Your task to perform on an android device: turn on sleep mode Image 0: 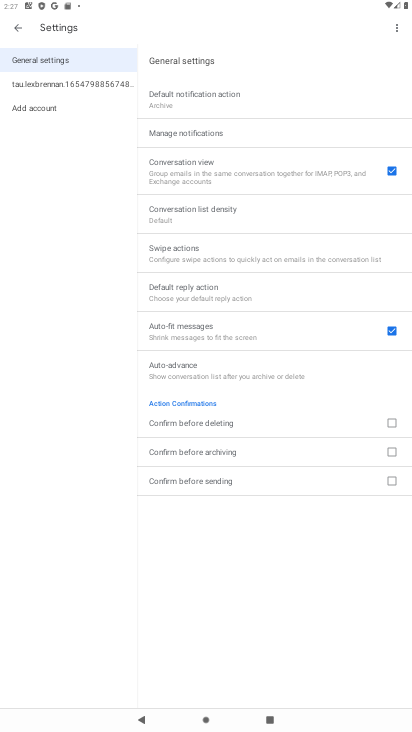
Step 0: press home button
Your task to perform on an android device: turn on sleep mode Image 1: 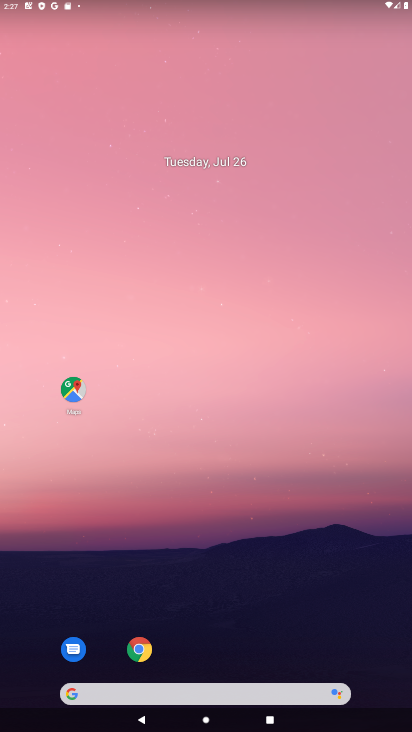
Step 1: drag from (182, 681) to (203, 185)
Your task to perform on an android device: turn on sleep mode Image 2: 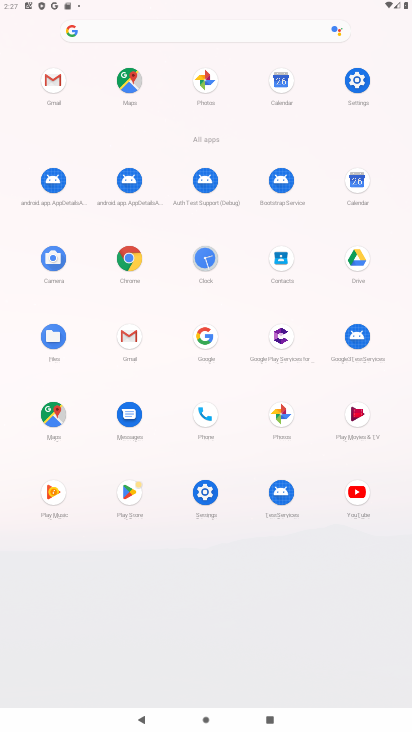
Step 2: click (206, 506)
Your task to perform on an android device: turn on sleep mode Image 3: 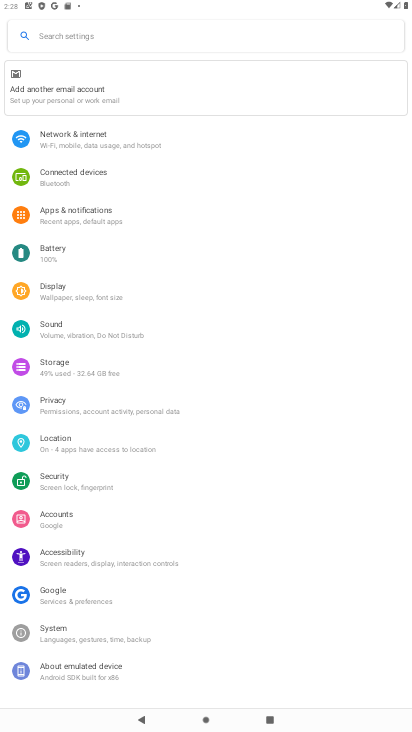
Step 3: click (87, 295)
Your task to perform on an android device: turn on sleep mode Image 4: 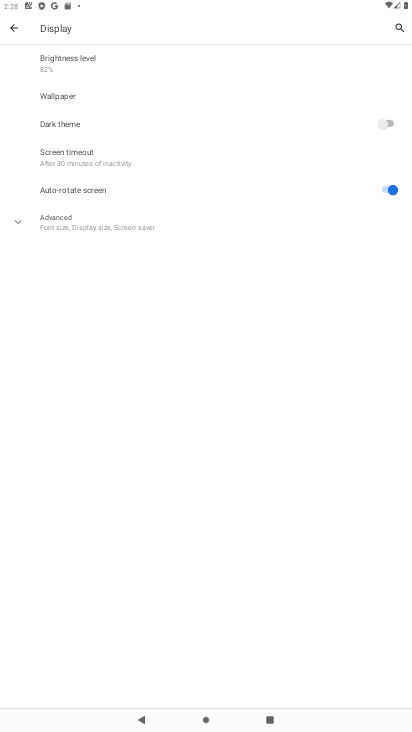
Step 4: click (57, 206)
Your task to perform on an android device: turn on sleep mode Image 5: 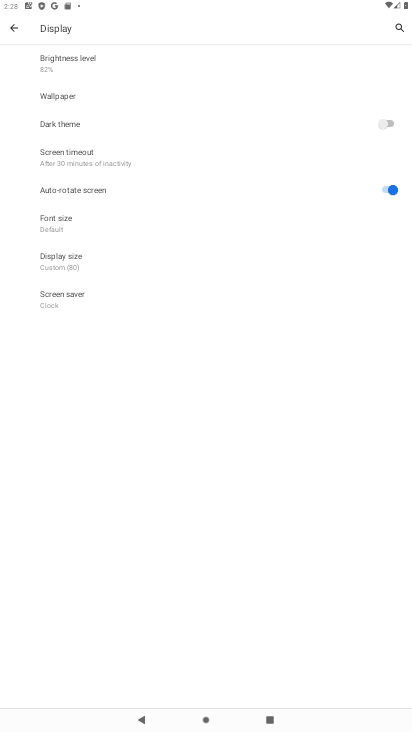
Step 5: task complete